Your task to perform on an android device: turn on airplane mode Image 0: 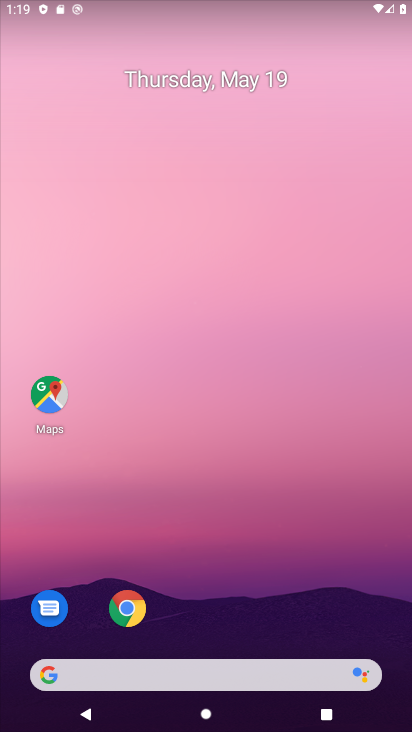
Step 0: drag from (237, 608) to (276, 203)
Your task to perform on an android device: turn on airplane mode Image 1: 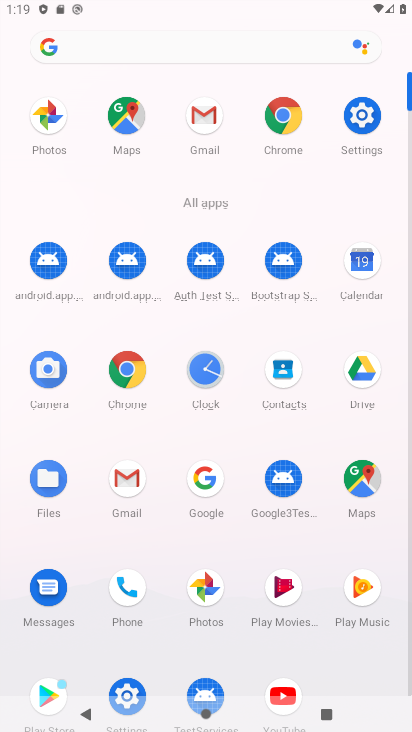
Step 1: click (348, 133)
Your task to perform on an android device: turn on airplane mode Image 2: 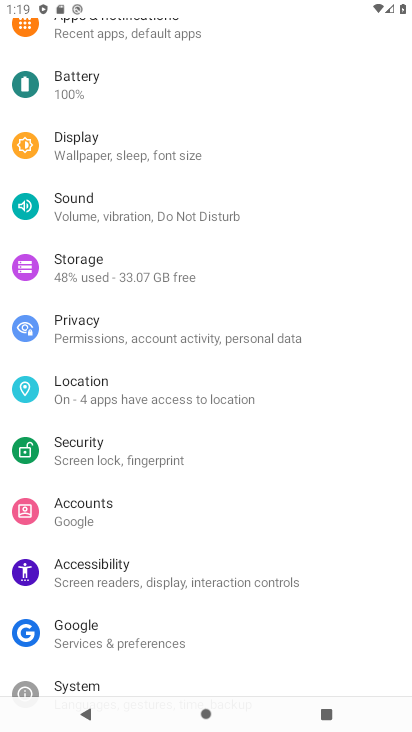
Step 2: click (252, 76)
Your task to perform on an android device: turn on airplane mode Image 3: 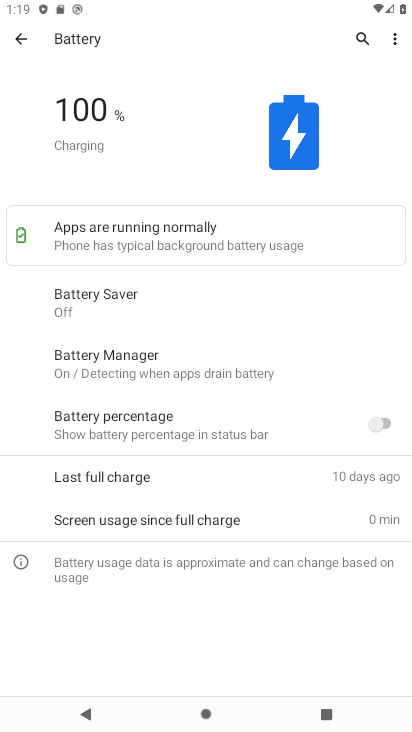
Step 3: click (276, 311)
Your task to perform on an android device: turn on airplane mode Image 4: 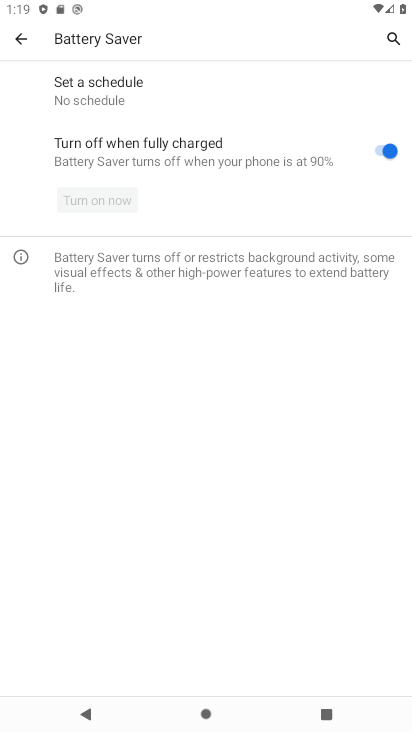
Step 4: click (31, 46)
Your task to perform on an android device: turn on airplane mode Image 5: 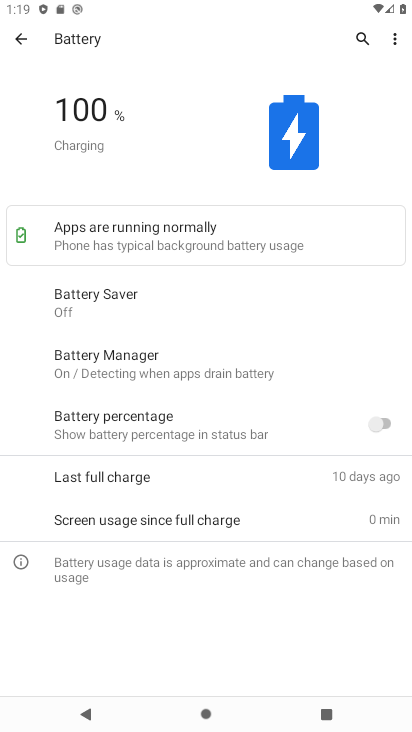
Step 5: click (14, 48)
Your task to perform on an android device: turn on airplane mode Image 6: 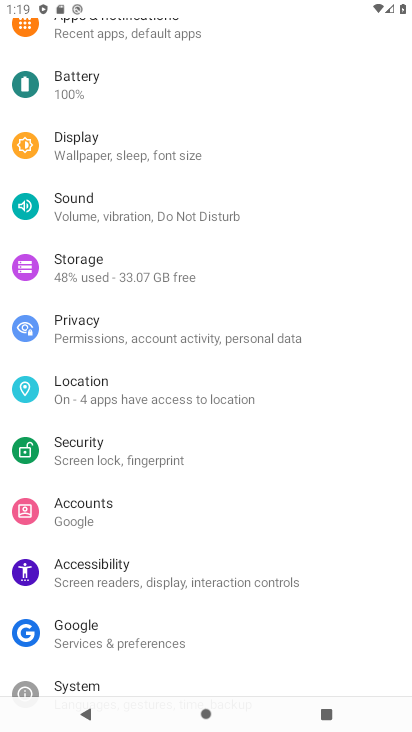
Step 6: drag from (175, 132) to (255, 512)
Your task to perform on an android device: turn on airplane mode Image 7: 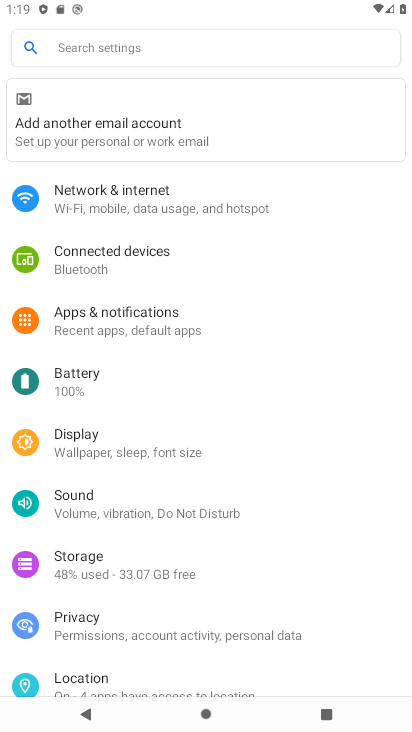
Step 7: click (182, 205)
Your task to perform on an android device: turn on airplane mode Image 8: 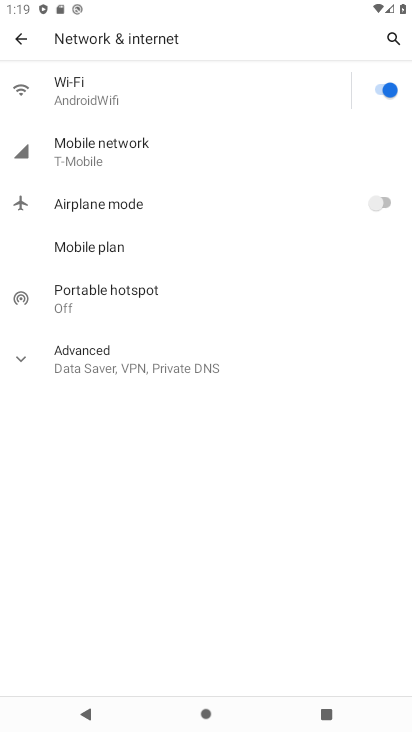
Step 8: click (360, 180)
Your task to perform on an android device: turn on airplane mode Image 9: 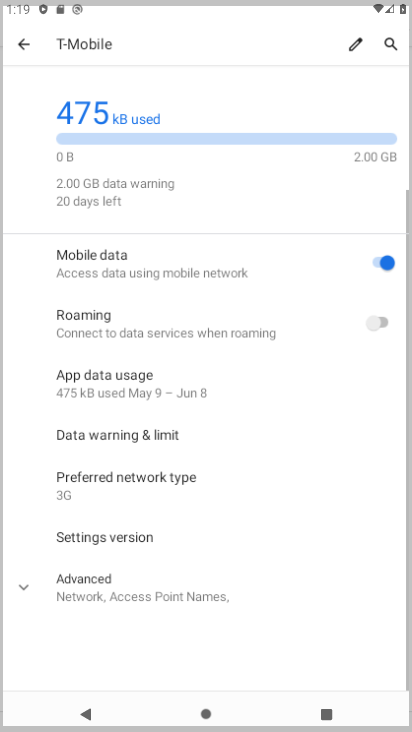
Step 9: click (380, 87)
Your task to perform on an android device: turn on airplane mode Image 10: 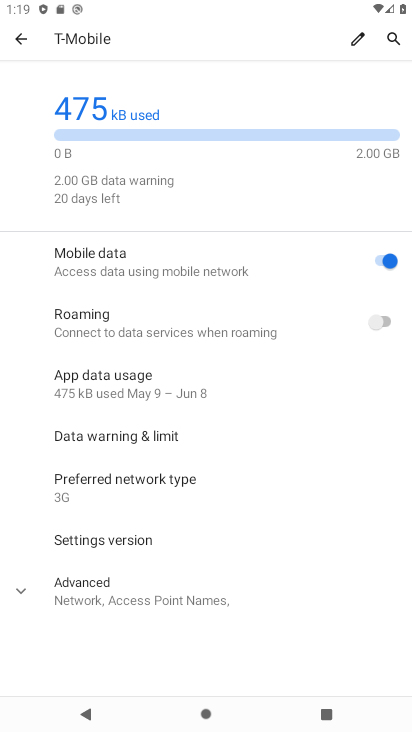
Step 10: task complete